Your task to perform on an android device: find snoozed emails in the gmail app Image 0: 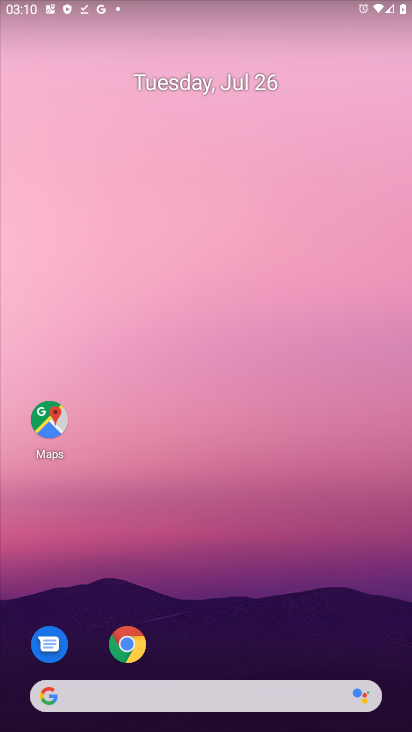
Step 0: drag from (188, 658) to (138, 81)
Your task to perform on an android device: find snoozed emails in the gmail app Image 1: 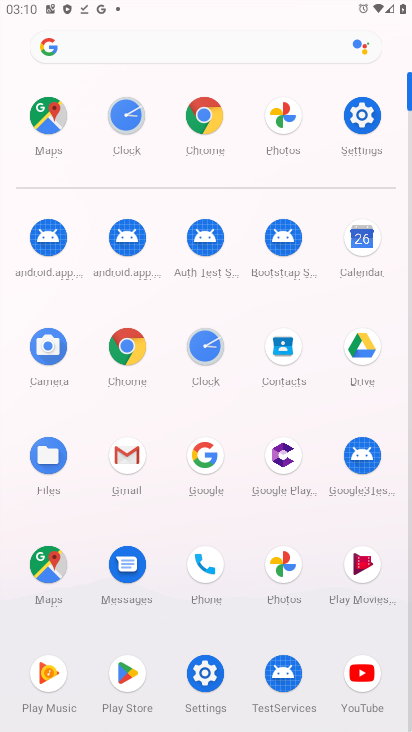
Step 1: click (122, 447)
Your task to perform on an android device: find snoozed emails in the gmail app Image 2: 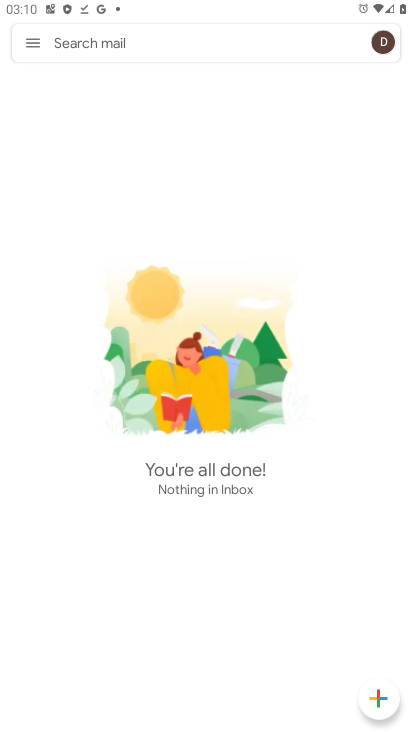
Step 2: click (26, 37)
Your task to perform on an android device: find snoozed emails in the gmail app Image 3: 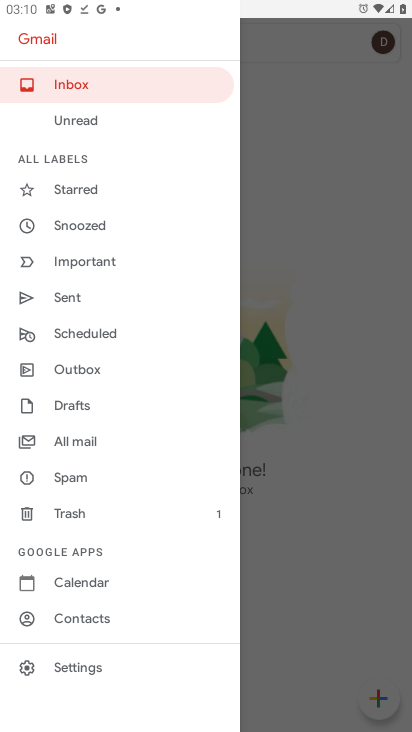
Step 3: click (87, 225)
Your task to perform on an android device: find snoozed emails in the gmail app Image 4: 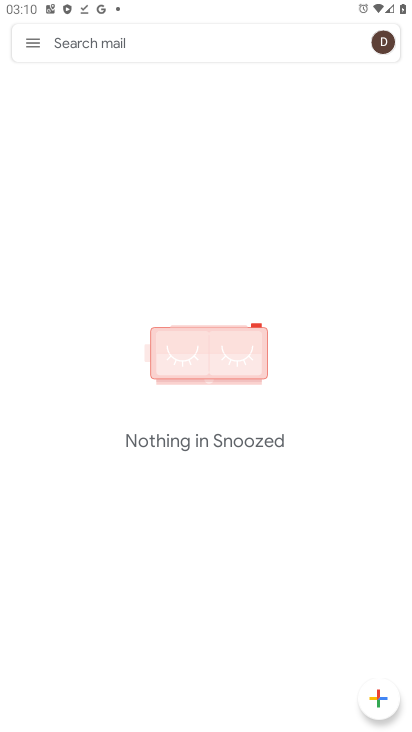
Step 4: task complete